Your task to perform on an android device: turn on javascript in the chrome app Image 0: 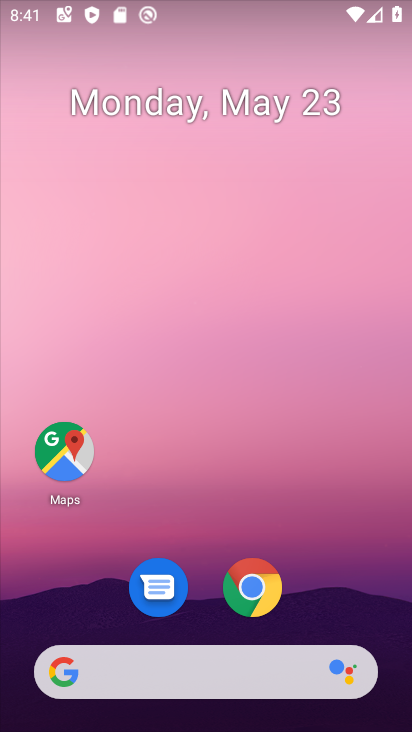
Step 0: click (258, 595)
Your task to perform on an android device: turn on javascript in the chrome app Image 1: 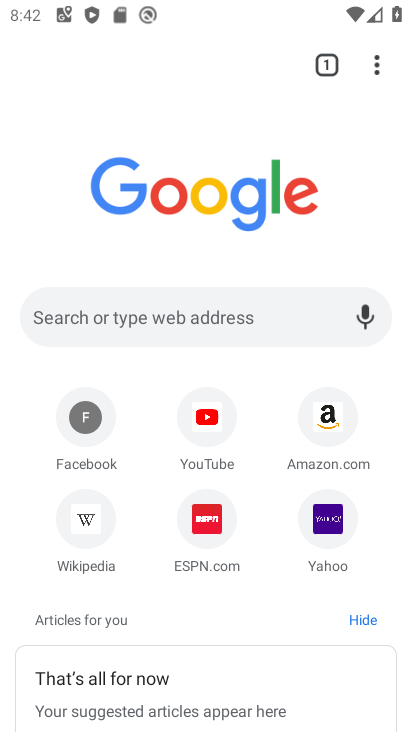
Step 1: click (390, 72)
Your task to perform on an android device: turn on javascript in the chrome app Image 2: 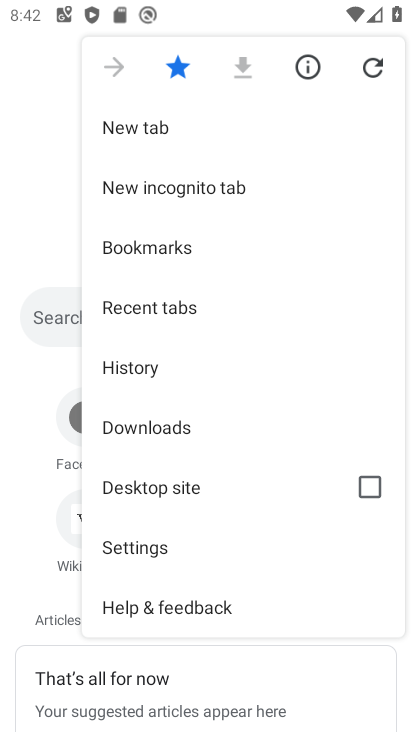
Step 2: click (102, 542)
Your task to perform on an android device: turn on javascript in the chrome app Image 3: 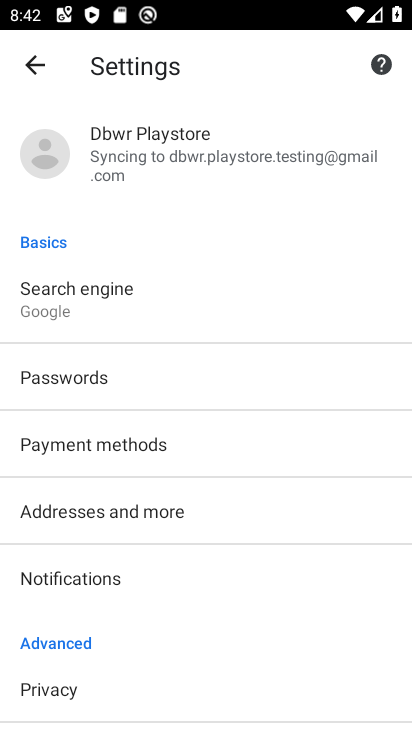
Step 3: drag from (185, 667) to (209, 358)
Your task to perform on an android device: turn on javascript in the chrome app Image 4: 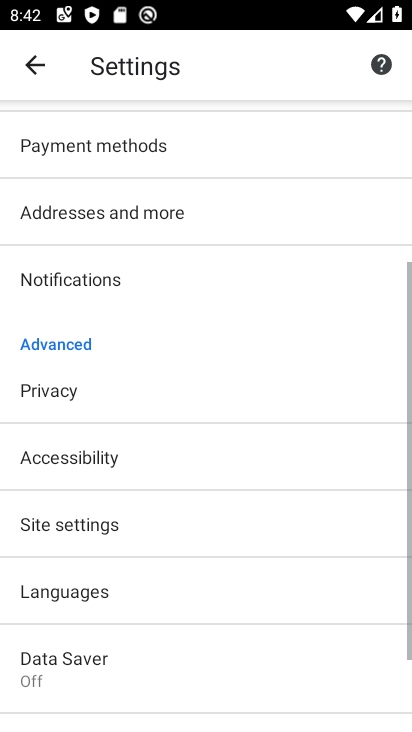
Step 4: click (111, 527)
Your task to perform on an android device: turn on javascript in the chrome app Image 5: 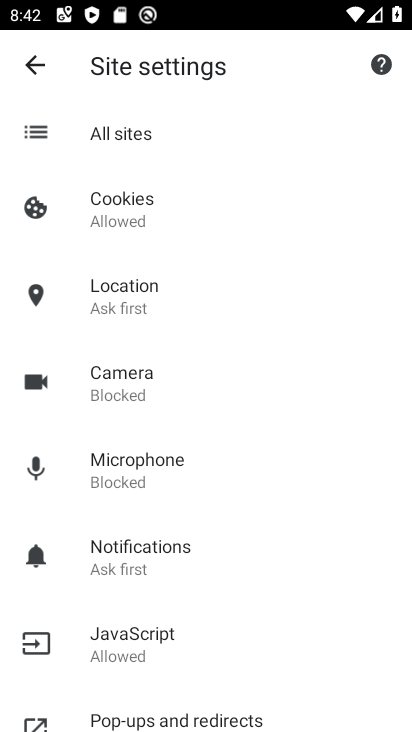
Step 5: click (164, 645)
Your task to perform on an android device: turn on javascript in the chrome app Image 6: 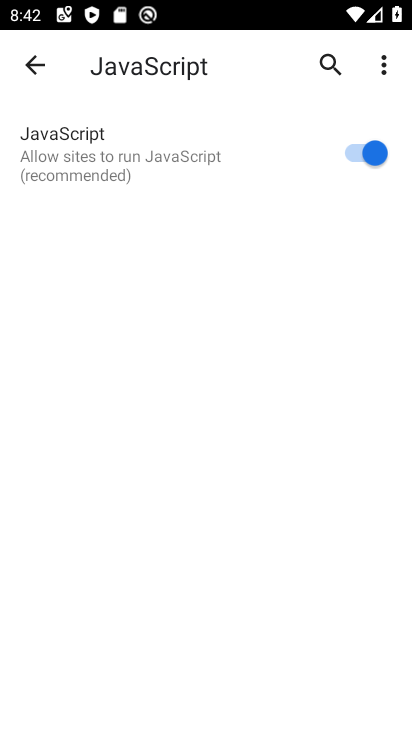
Step 6: task complete